Your task to perform on an android device: open device folders in google photos Image 0: 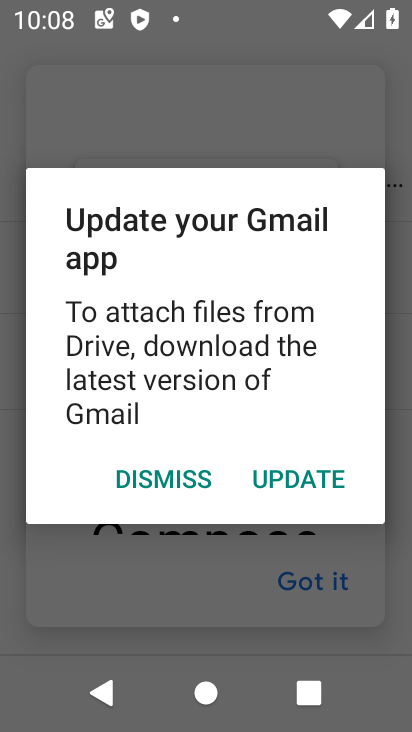
Step 0: press home button
Your task to perform on an android device: open device folders in google photos Image 1: 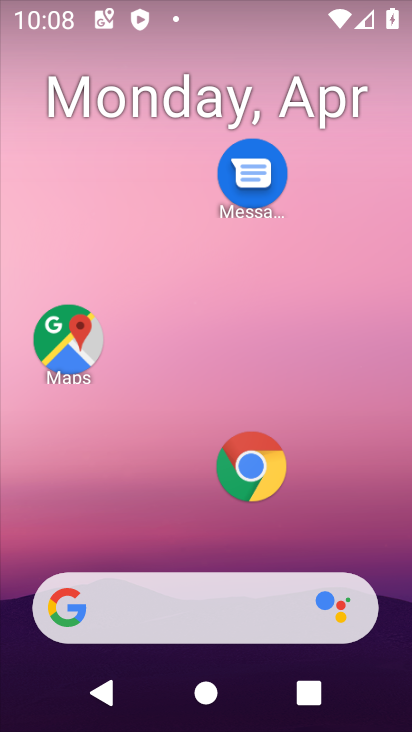
Step 1: drag from (179, 474) to (259, 72)
Your task to perform on an android device: open device folders in google photos Image 2: 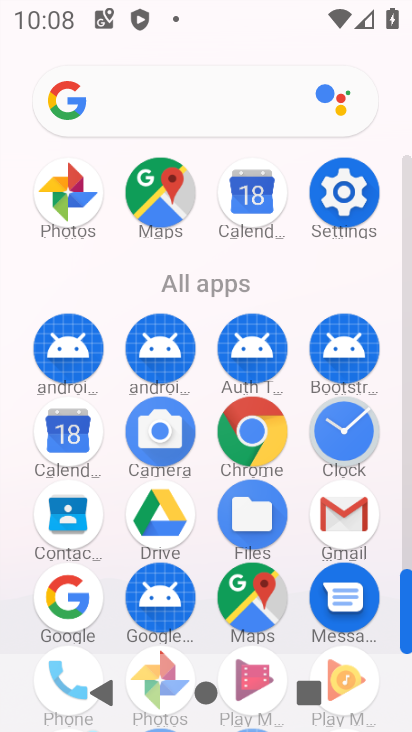
Step 2: drag from (204, 603) to (250, 240)
Your task to perform on an android device: open device folders in google photos Image 3: 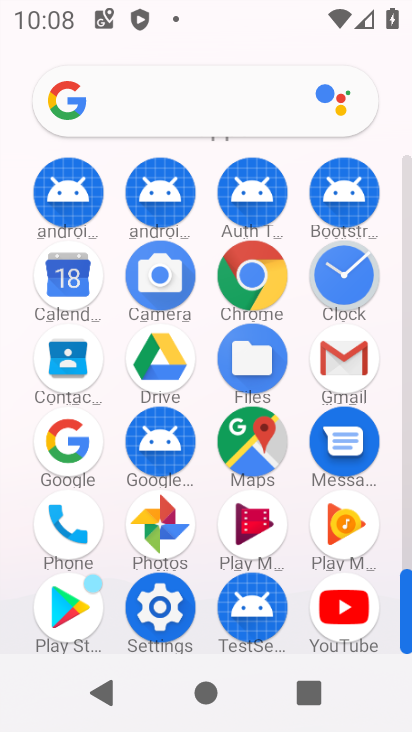
Step 3: click (148, 501)
Your task to perform on an android device: open device folders in google photos Image 4: 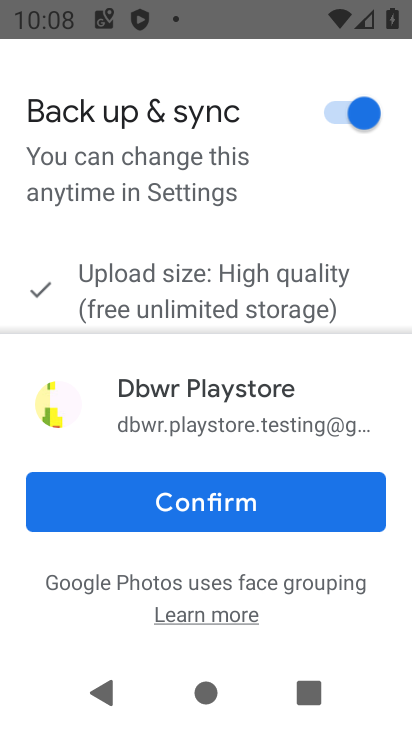
Step 4: click (148, 501)
Your task to perform on an android device: open device folders in google photos Image 5: 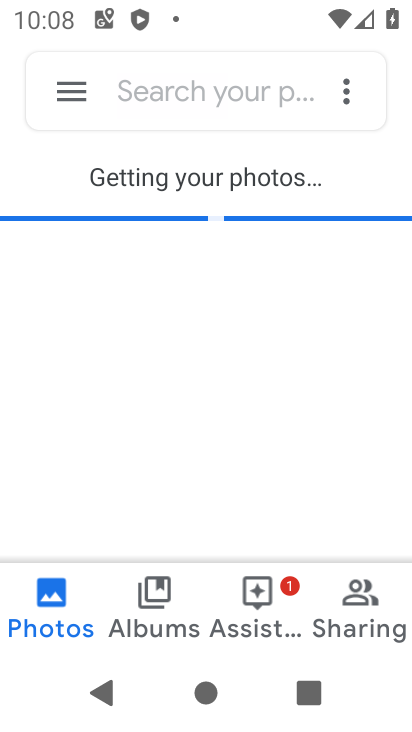
Step 5: click (63, 99)
Your task to perform on an android device: open device folders in google photos Image 6: 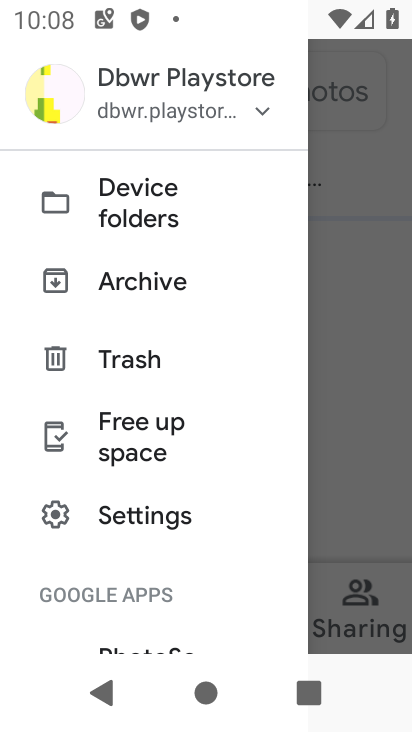
Step 6: click (178, 220)
Your task to perform on an android device: open device folders in google photos Image 7: 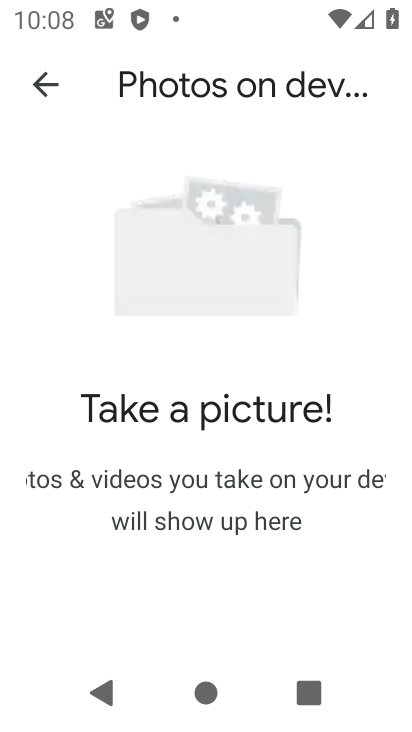
Step 7: task complete